Your task to perform on an android device: turn on the 12-hour format for clock Image 0: 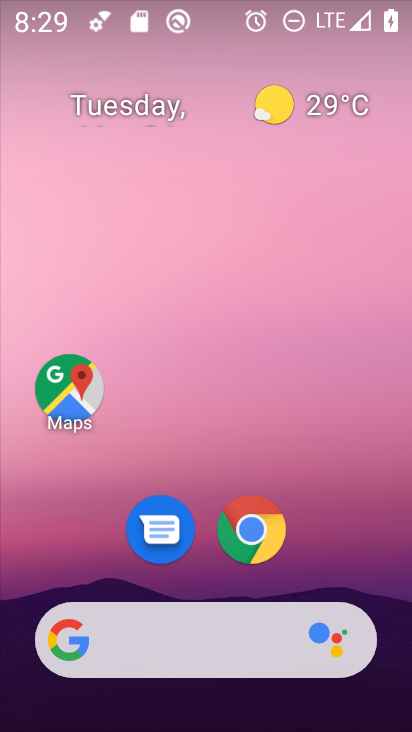
Step 0: drag from (392, 634) to (258, 133)
Your task to perform on an android device: turn on the 12-hour format for clock Image 1: 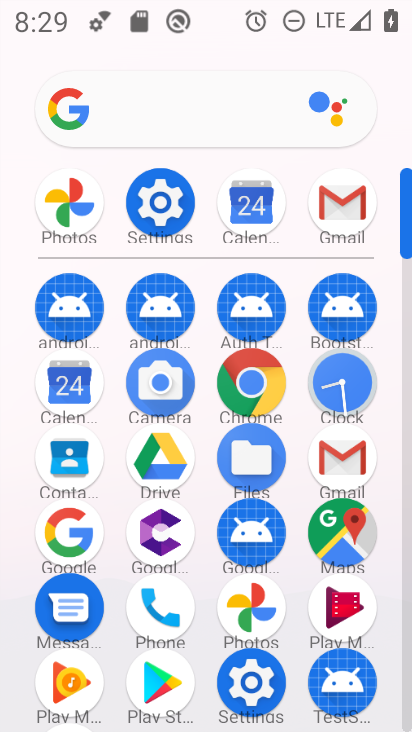
Step 1: click (354, 386)
Your task to perform on an android device: turn on the 12-hour format for clock Image 2: 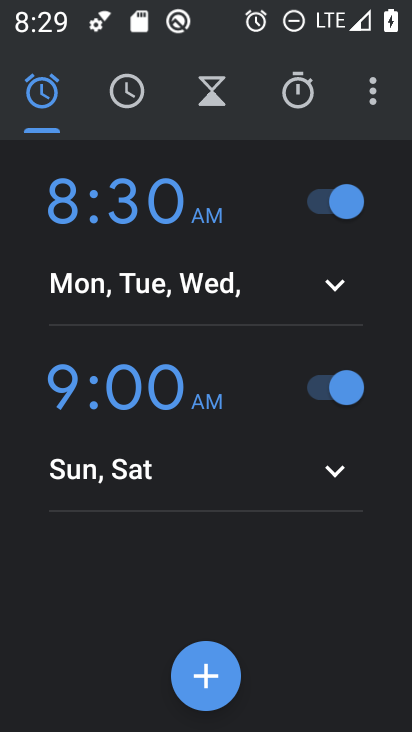
Step 2: click (370, 81)
Your task to perform on an android device: turn on the 12-hour format for clock Image 3: 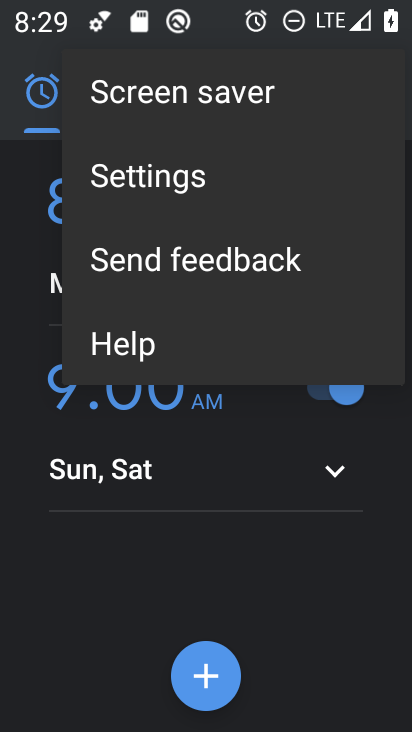
Step 3: click (223, 191)
Your task to perform on an android device: turn on the 12-hour format for clock Image 4: 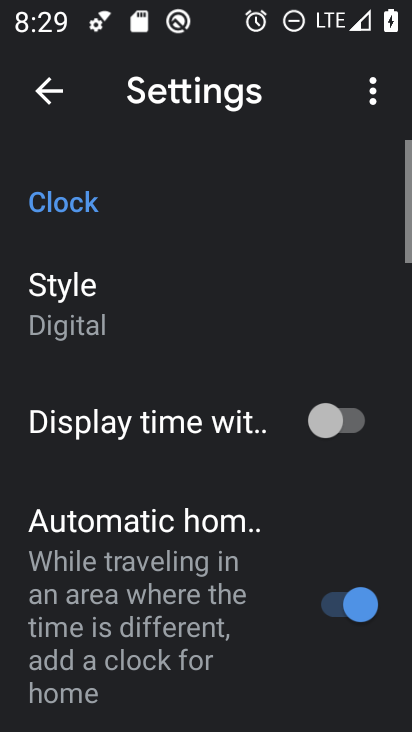
Step 4: drag from (205, 629) to (197, 120)
Your task to perform on an android device: turn on the 12-hour format for clock Image 5: 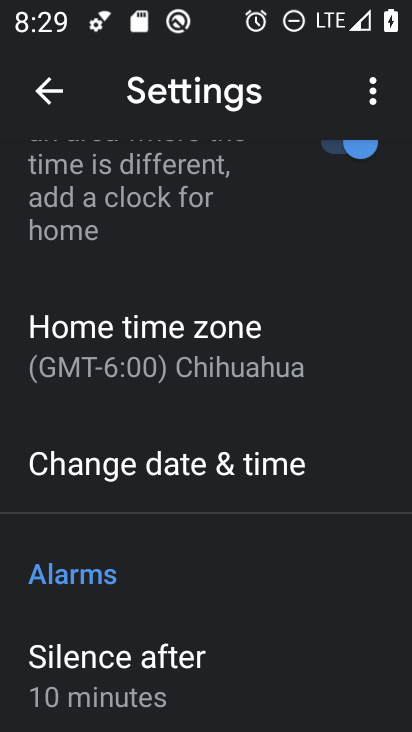
Step 5: click (215, 466)
Your task to perform on an android device: turn on the 12-hour format for clock Image 6: 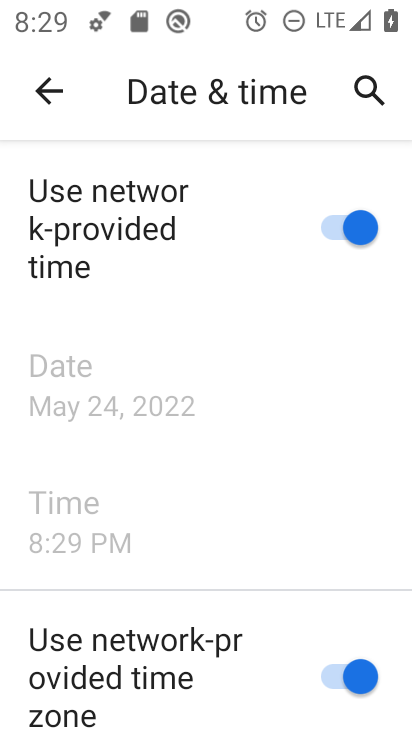
Step 6: task complete